Your task to perform on an android device: Play the last video I watched on Youtube Image 0: 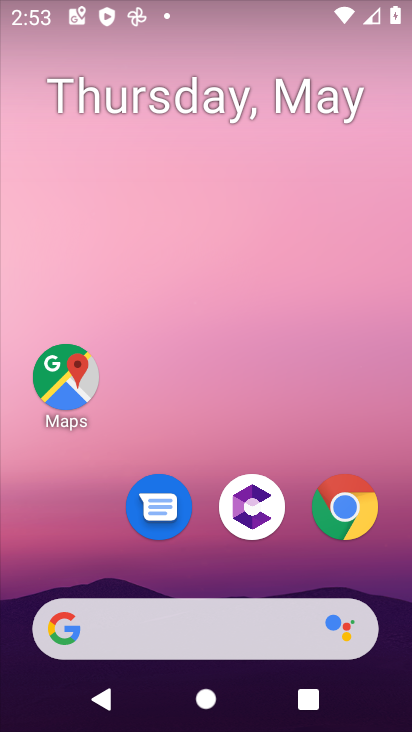
Step 0: drag from (285, 570) to (233, 127)
Your task to perform on an android device: Play the last video I watched on Youtube Image 1: 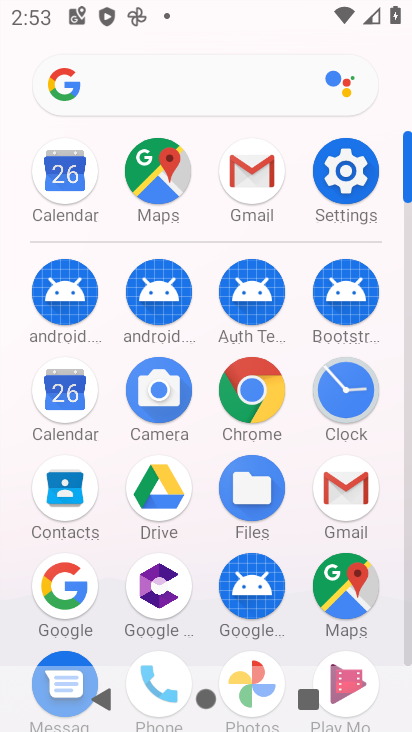
Step 1: drag from (110, 644) to (96, 179)
Your task to perform on an android device: Play the last video I watched on Youtube Image 2: 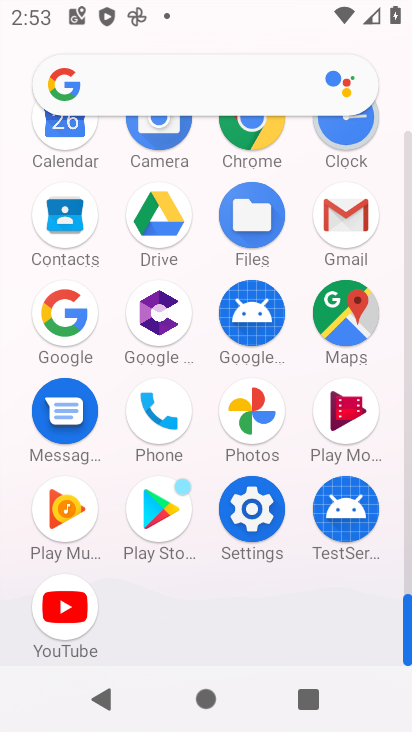
Step 2: click (76, 606)
Your task to perform on an android device: Play the last video I watched on Youtube Image 3: 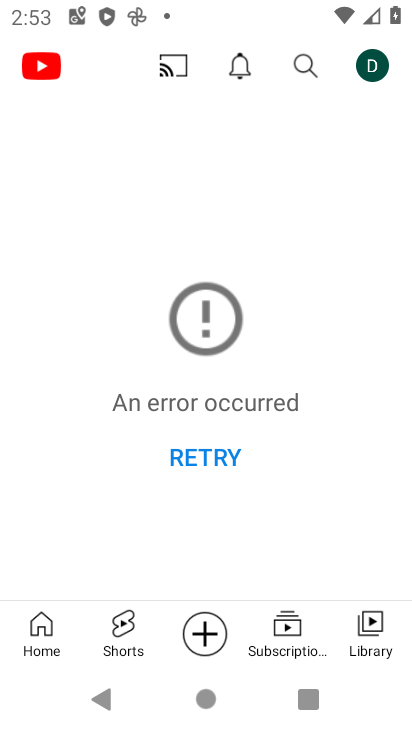
Step 3: click (351, 621)
Your task to perform on an android device: Play the last video I watched on Youtube Image 4: 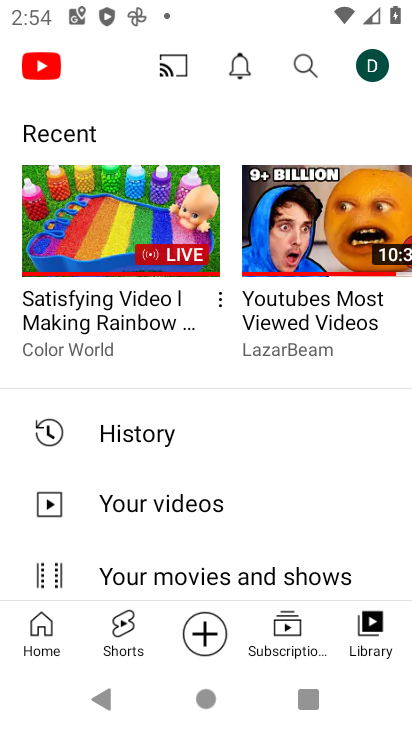
Step 4: click (144, 437)
Your task to perform on an android device: Play the last video I watched on Youtube Image 5: 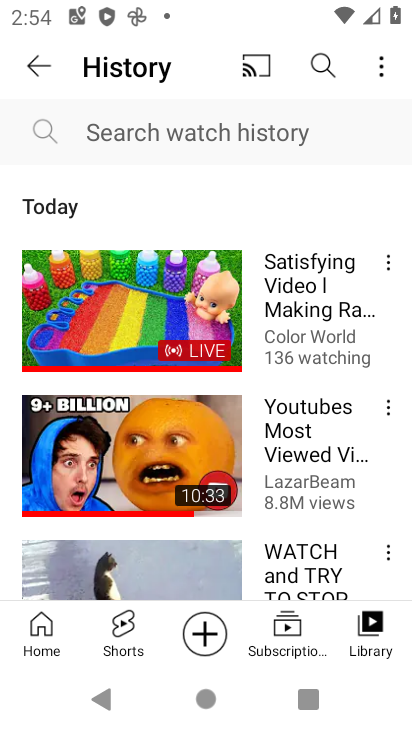
Step 5: click (155, 293)
Your task to perform on an android device: Play the last video I watched on Youtube Image 6: 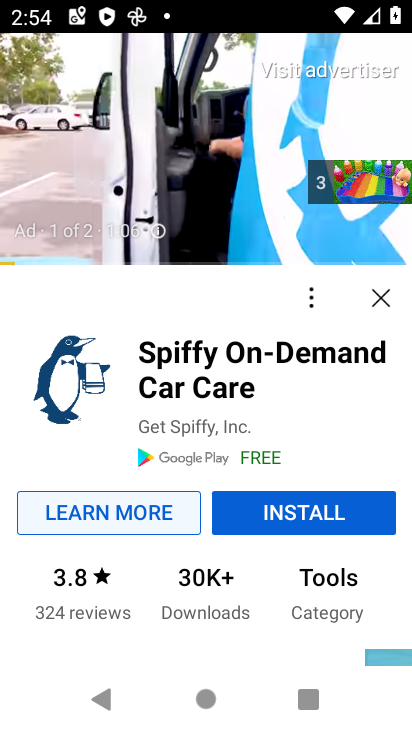
Step 6: task complete